Your task to perform on an android device: toggle location history Image 0: 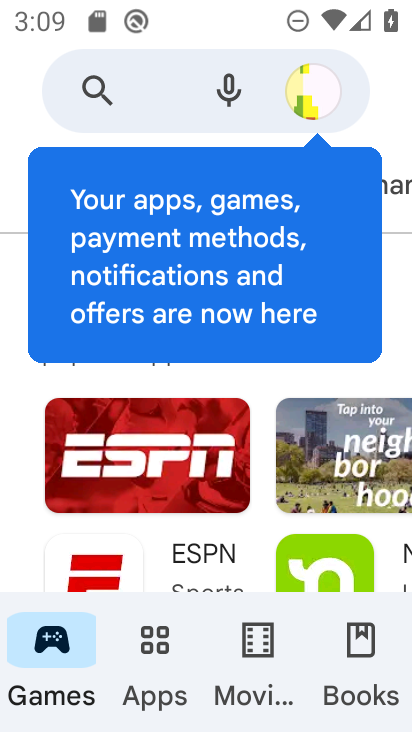
Step 0: press home button
Your task to perform on an android device: toggle location history Image 1: 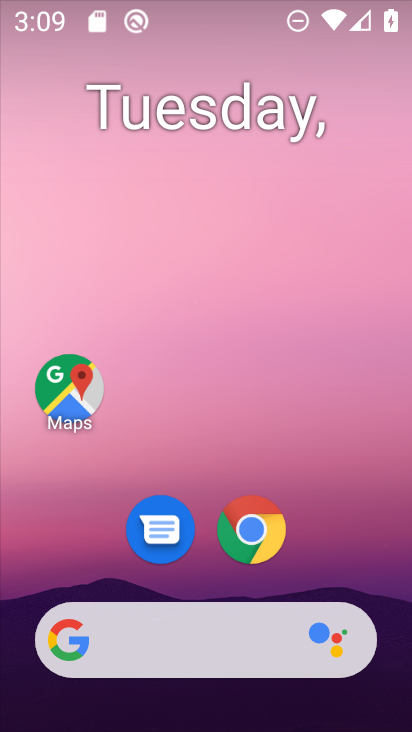
Step 1: drag from (262, 573) to (304, 230)
Your task to perform on an android device: toggle location history Image 2: 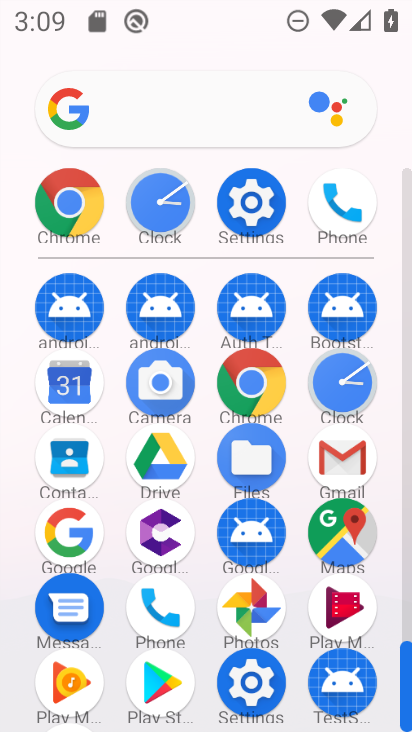
Step 2: click (228, 199)
Your task to perform on an android device: toggle location history Image 3: 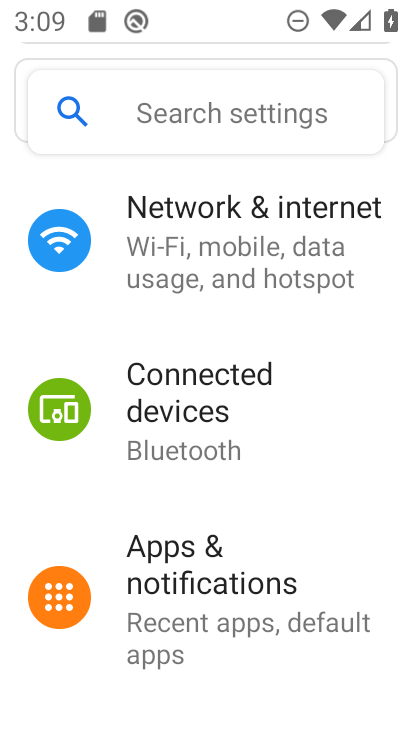
Step 3: drag from (177, 674) to (306, 138)
Your task to perform on an android device: toggle location history Image 4: 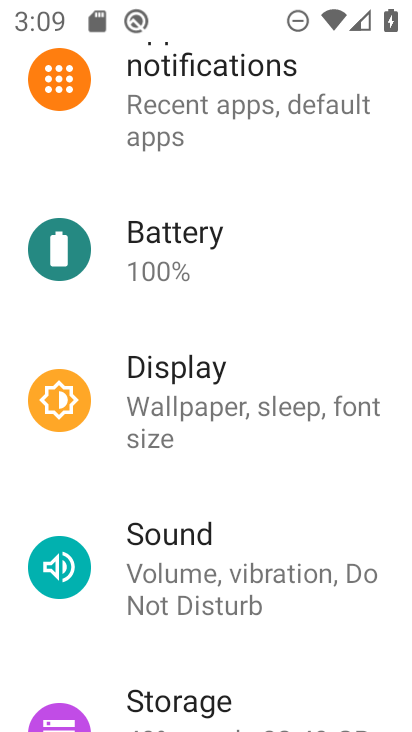
Step 4: drag from (217, 607) to (333, 137)
Your task to perform on an android device: toggle location history Image 5: 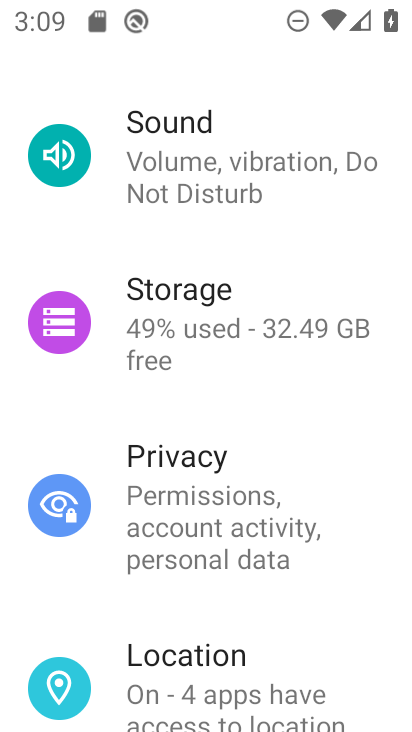
Step 5: click (233, 678)
Your task to perform on an android device: toggle location history Image 6: 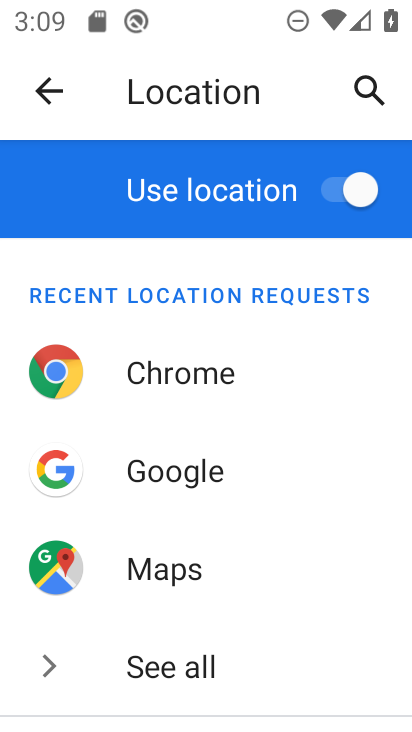
Step 6: click (333, 186)
Your task to perform on an android device: toggle location history Image 7: 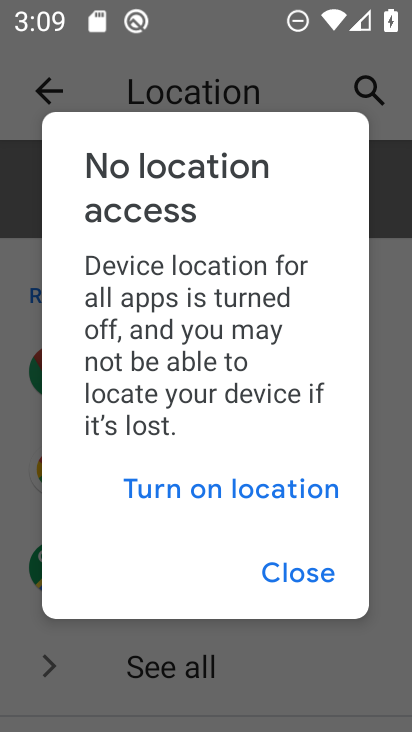
Step 7: click (303, 572)
Your task to perform on an android device: toggle location history Image 8: 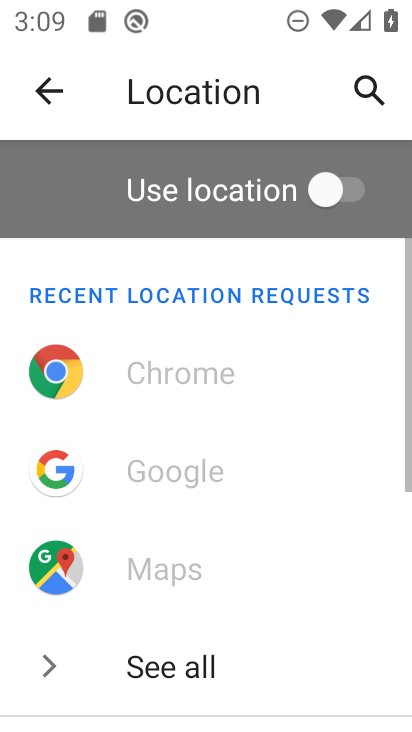
Step 8: task complete